Your task to perform on an android device: toggle location history Image 0: 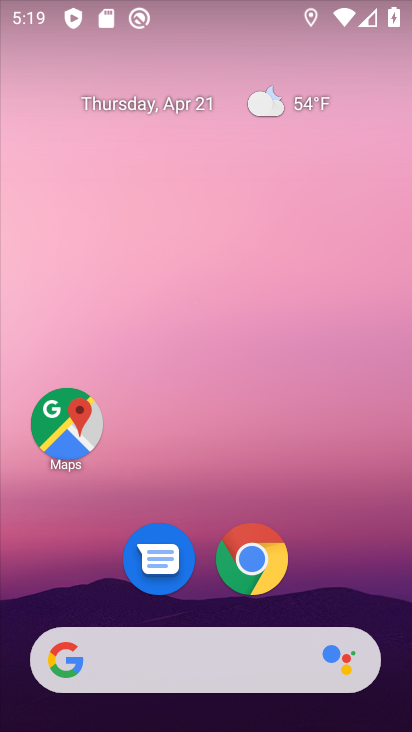
Step 0: drag from (347, 463) to (364, 72)
Your task to perform on an android device: toggle location history Image 1: 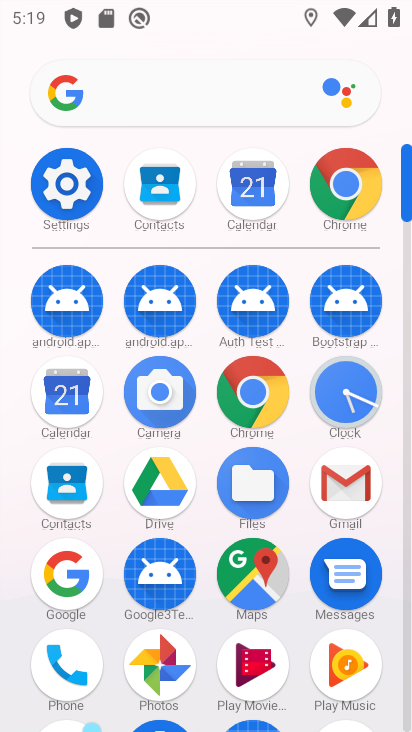
Step 1: click (44, 195)
Your task to perform on an android device: toggle location history Image 2: 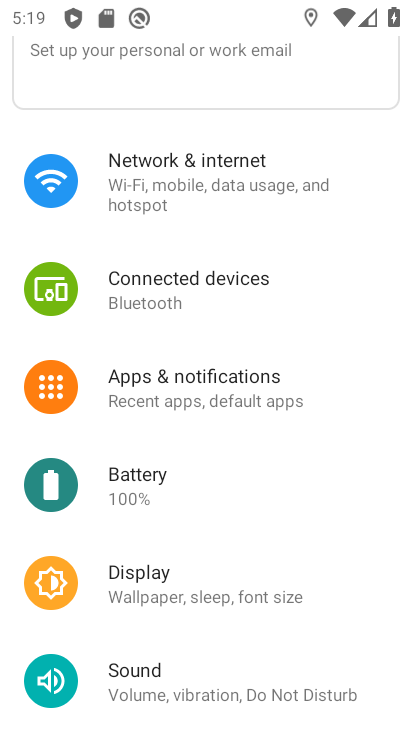
Step 2: drag from (211, 515) to (257, 101)
Your task to perform on an android device: toggle location history Image 3: 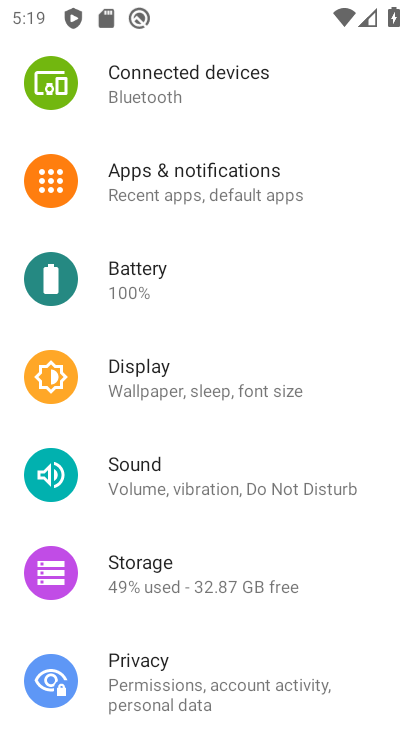
Step 3: drag from (218, 532) to (216, 217)
Your task to perform on an android device: toggle location history Image 4: 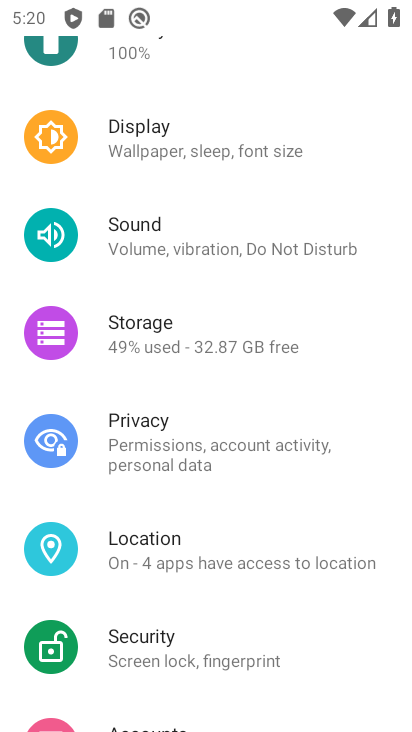
Step 4: click (201, 572)
Your task to perform on an android device: toggle location history Image 5: 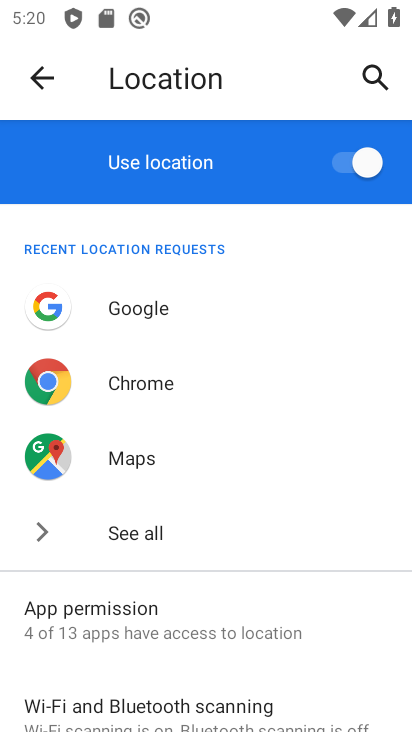
Step 5: drag from (242, 530) to (281, 208)
Your task to perform on an android device: toggle location history Image 6: 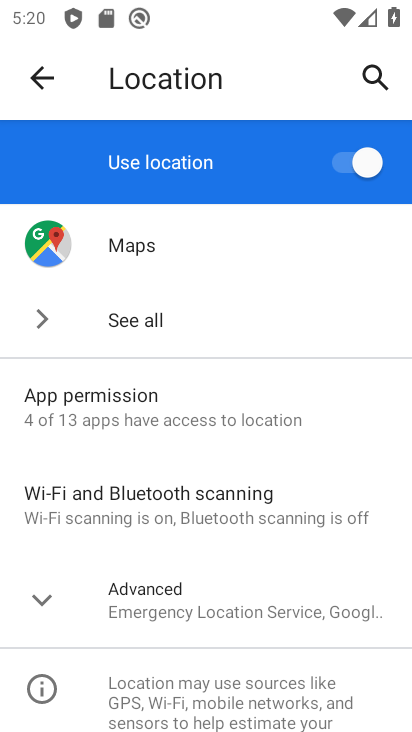
Step 6: drag from (234, 568) to (265, 363)
Your task to perform on an android device: toggle location history Image 7: 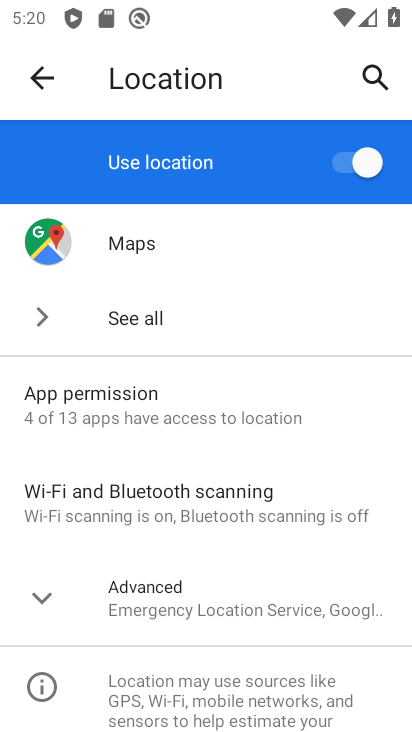
Step 7: drag from (225, 527) to (237, 266)
Your task to perform on an android device: toggle location history Image 8: 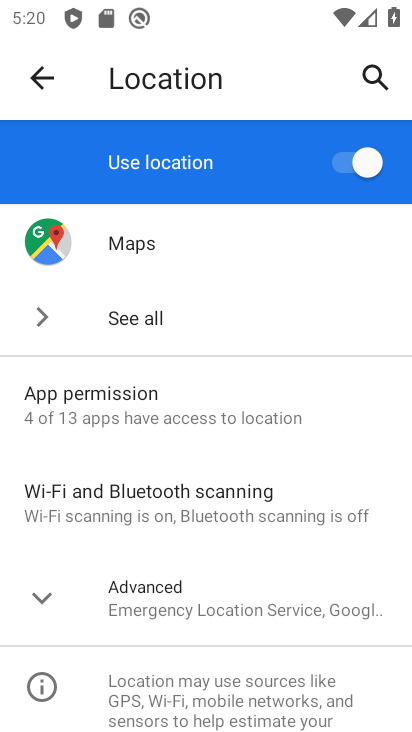
Step 8: click (147, 612)
Your task to perform on an android device: toggle location history Image 9: 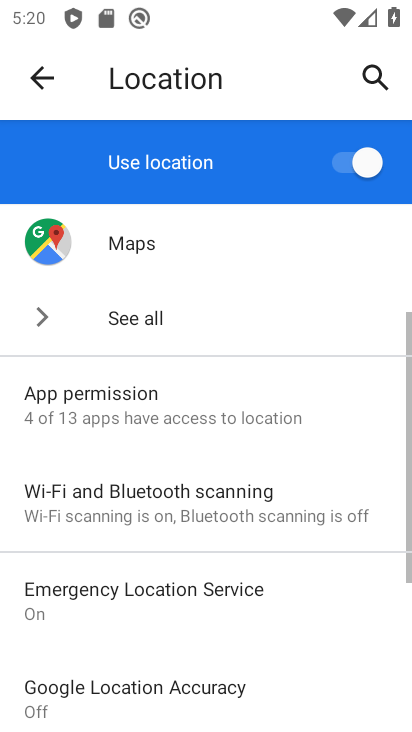
Step 9: drag from (159, 642) to (201, 283)
Your task to perform on an android device: toggle location history Image 10: 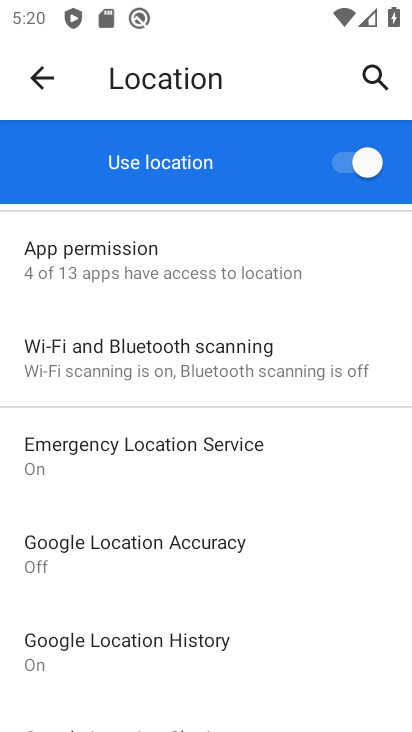
Step 10: click (75, 639)
Your task to perform on an android device: toggle location history Image 11: 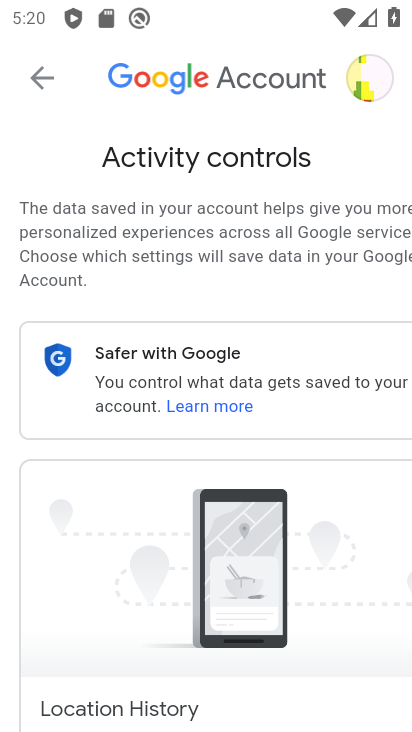
Step 11: drag from (271, 616) to (297, 148)
Your task to perform on an android device: toggle location history Image 12: 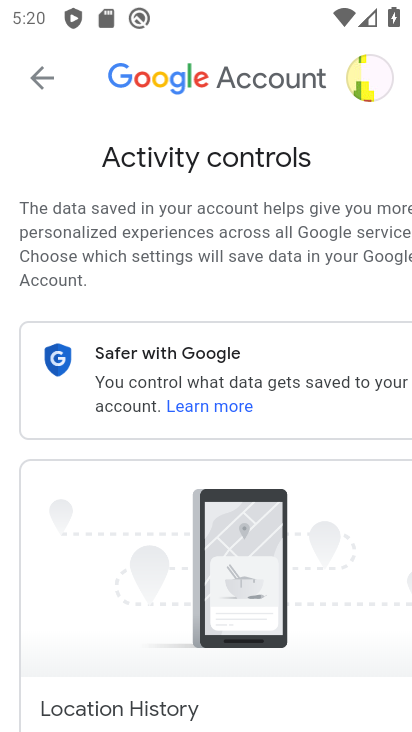
Step 12: drag from (278, 584) to (278, 185)
Your task to perform on an android device: toggle location history Image 13: 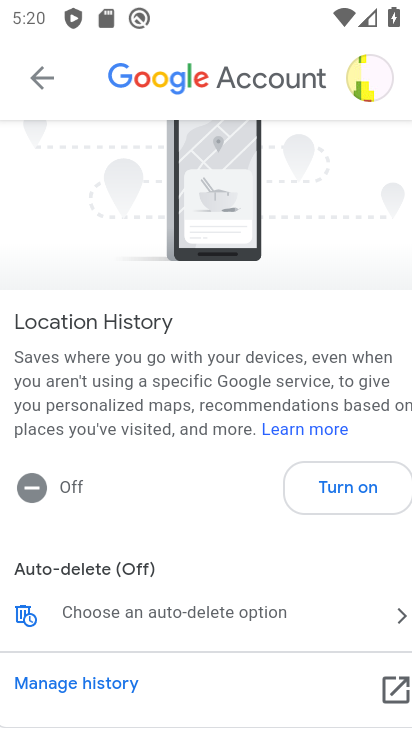
Step 13: click (319, 490)
Your task to perform on an android device: toggle location history Image 14: 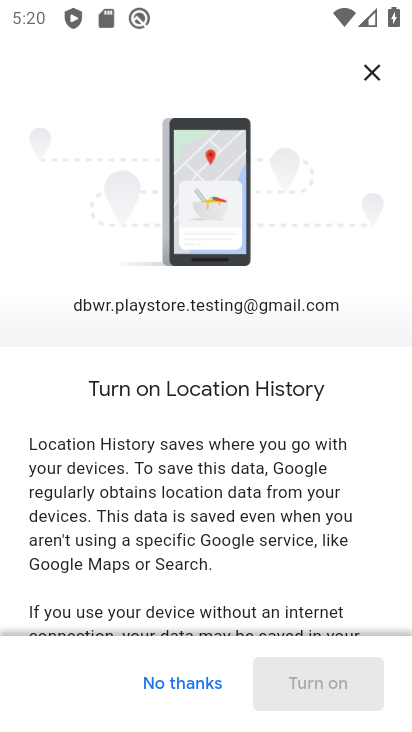
Step 14: drag from (280, 579) to (314, 149)
Your task to perform on an android device: toggle location history Image 15: 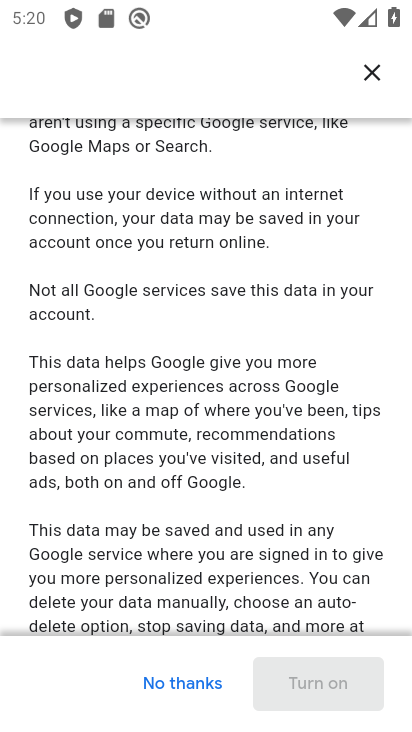
Step 15: drag from (266, 531) to (296, 63)
Your task to perform on an android device: toggle location history Image 16: 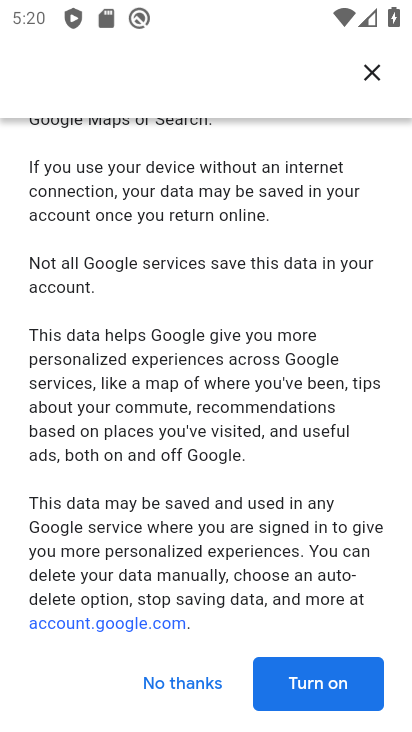
Step 16: click (326, 671)
Your task to perform on an android device: toggle location history Image 17: 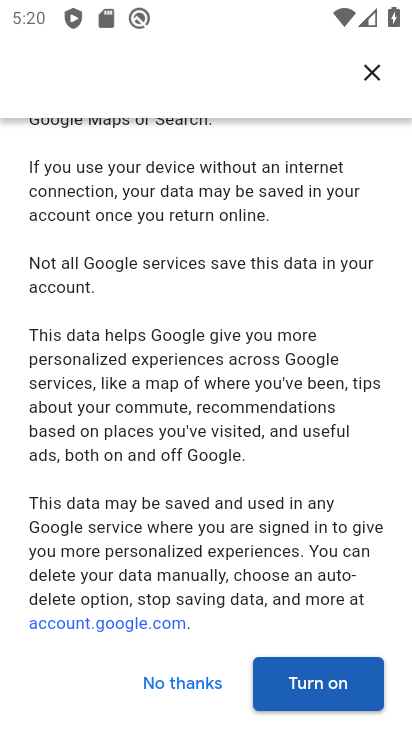
Step 17: click (313, 691)
Your task to perform on an android device: toggle location history Image 18: 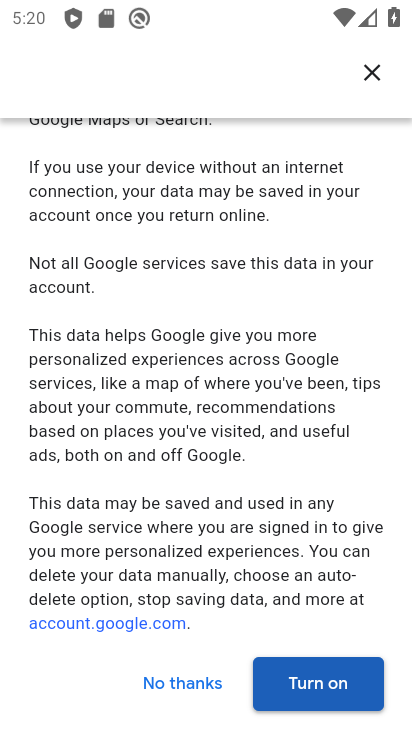
Step 18: click (309, 691)
Your task to perform on an android device: toggle location history Image 19: 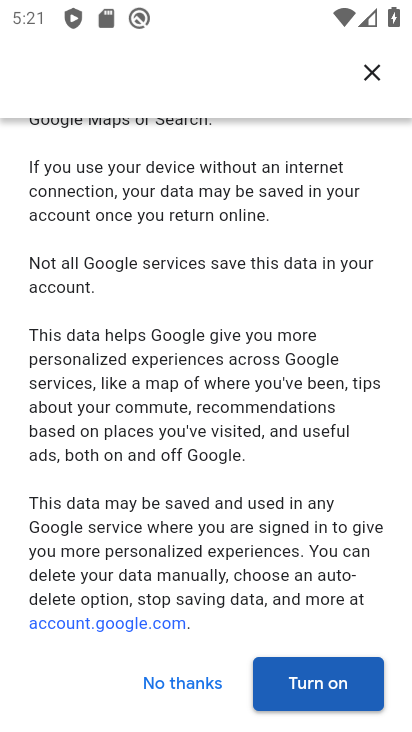
Step 19: click (319, 699)
Your task to perform on an android device: toggle location history Image 20: 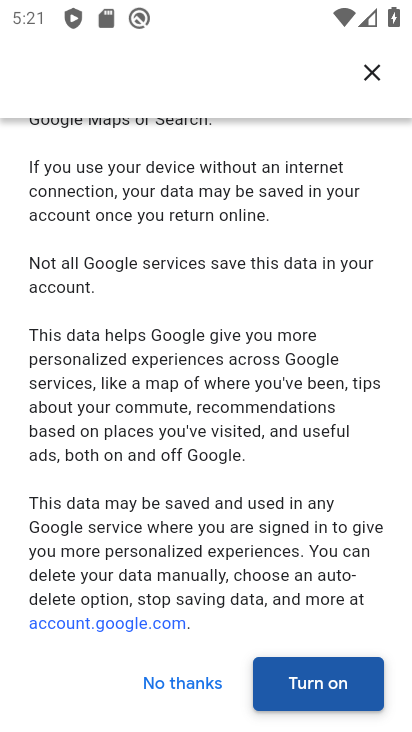
Step 20: click (320, 699)
Your task to perform on an android device: toggle location history Image 21: 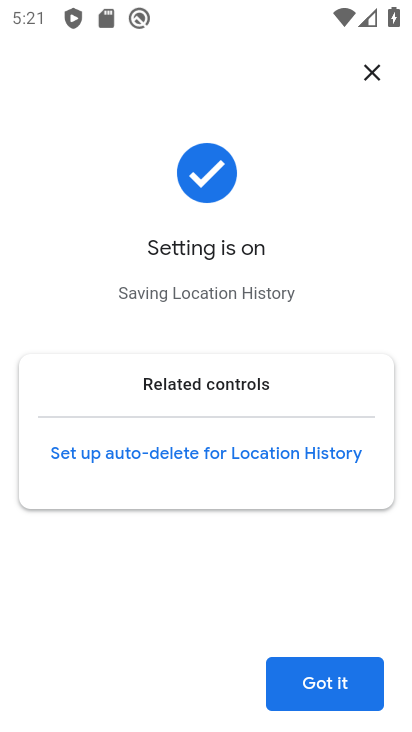
Step 21: click (320, 700)
Your task to perform on an android device: toggle location history Image 22: 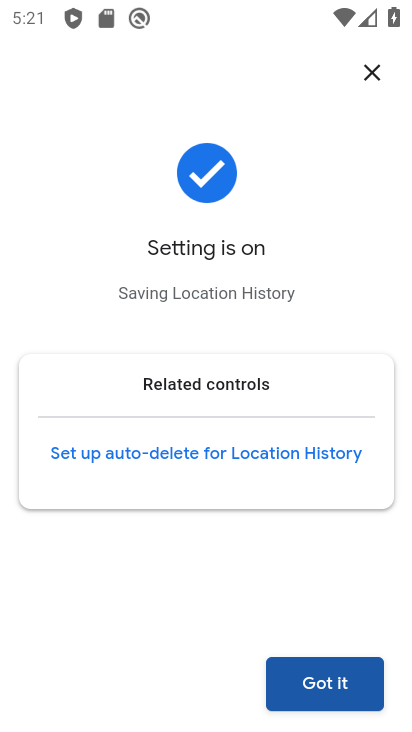
Step 22: task complete